Your task to perform on an android device: Show me the alarms in the clock app Image 0: 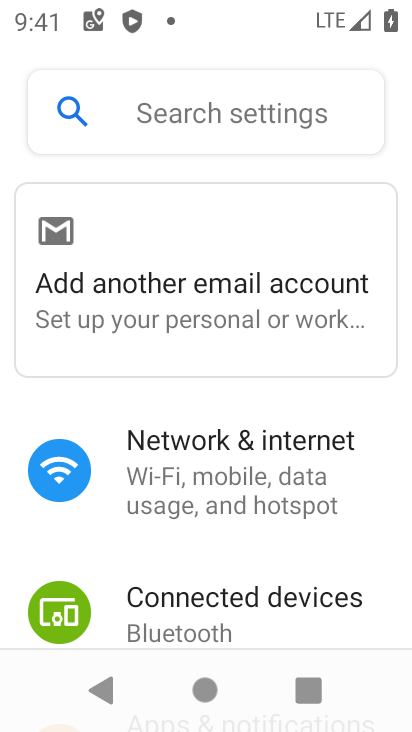
Step 0: press home button
Your task to perform on an android device: Show me the alarms in the clock app Image 1: 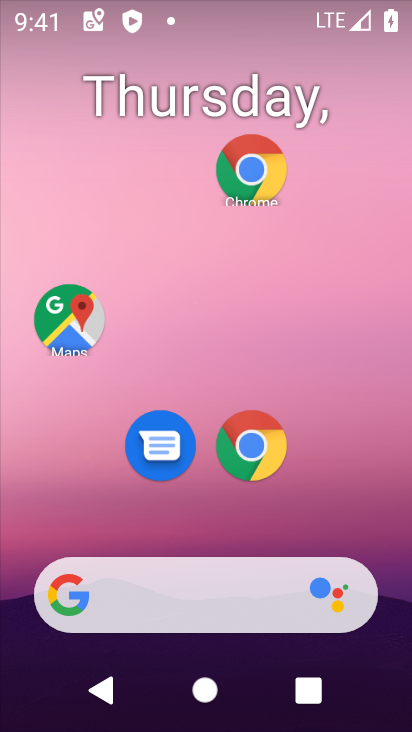
Step 1: drag from (206, 550) to (204, 26)
Your task to perform on an android device: Show me the alarms in the clock app Image 2: 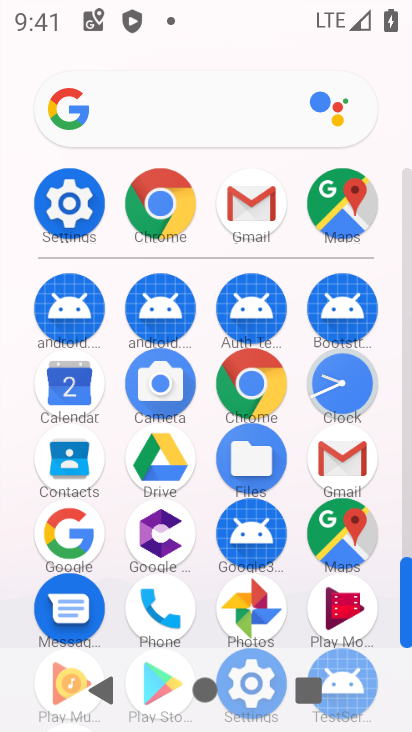
Step 2: drag from (188, 337) to (188, 97)
Your task to perform on an android device: Show me the alarms in the clock app Image 3: 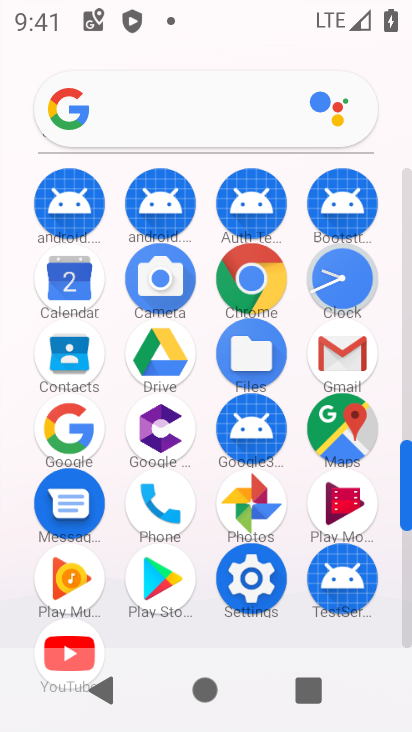
Step 3: click (336, 297)
Your task to perform on an android device: Show me the alarms in the clock app Image 4: 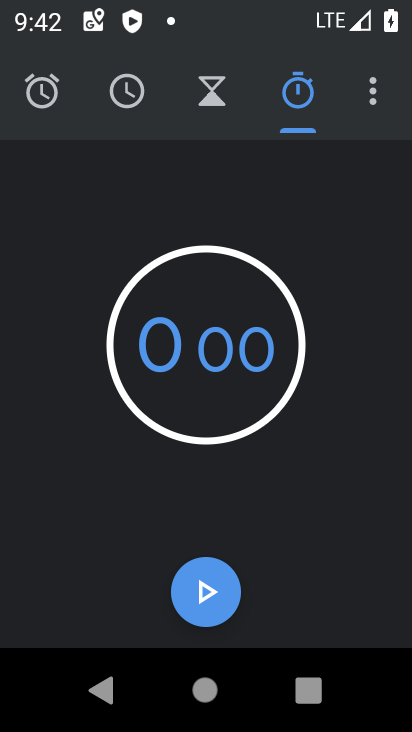
Step 4: click (61, 83)
Your task to perform on an android device: Show me the alarms in the clock app Image 5: 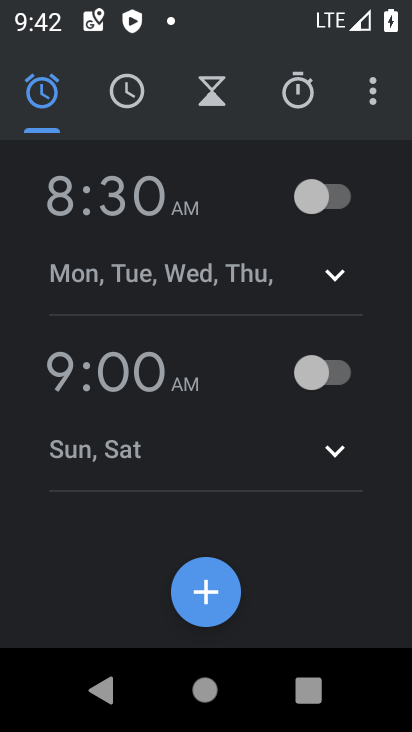
Step 5: task complete